Your task to perform on an android device: add a contact in the contacts app Image 0: 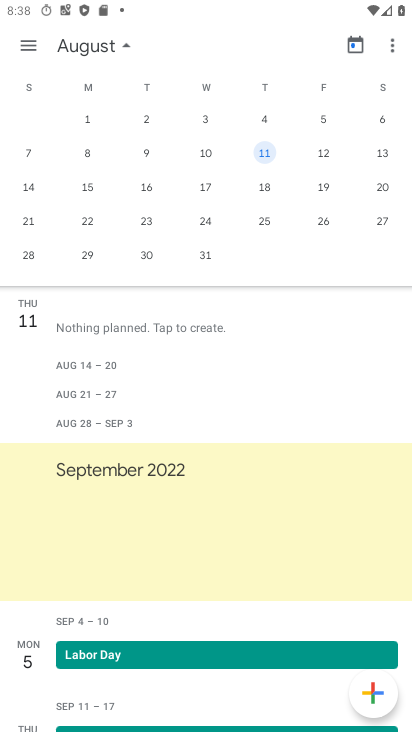
Step 0: click (296, 307)
Your task to perform on an android device: add a contact in the contacts app Image 1: 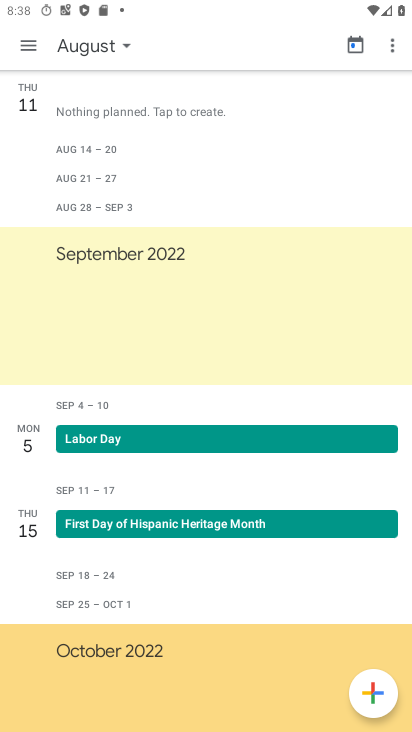
Step 1: press home button
Your task to perform on an android device: add a contact in the contacts app Image 2: 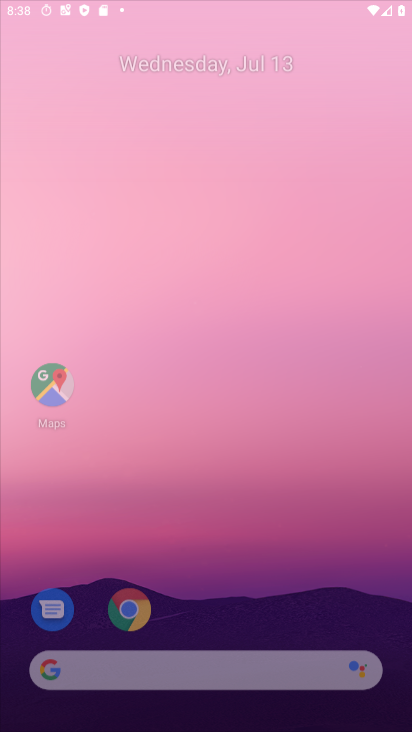
Step 2: press home button
Your task to perform on an android device: add a contact in the contacts app Image 3: 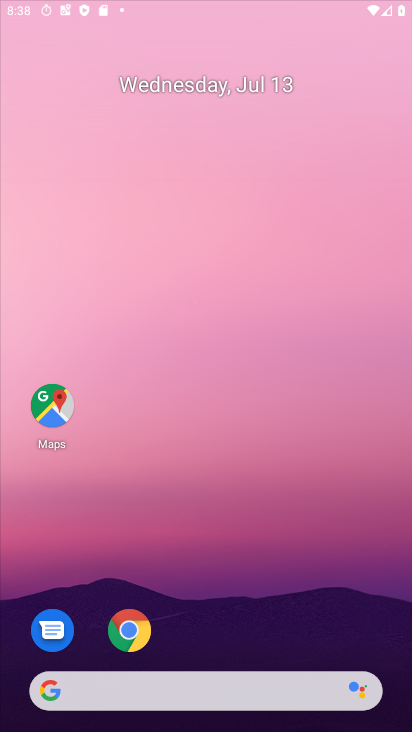
Step 3: drag from (349, 452) to (387, 123)
Your task to perform on an android device: add a contact in the contacts app Image 4: 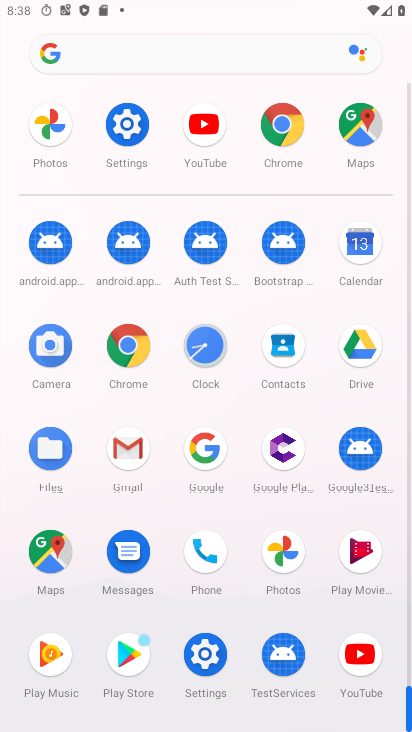
Step 4: click (279, 335)
Your task to perform on an android device: add a contact in the contacts app Image 5: 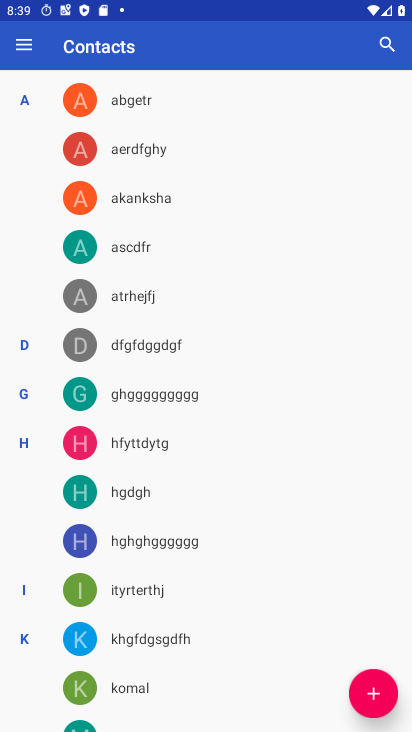
Step 5: click (378, 699)
Your task to perform on an android device: add a contact in the contacts app Image 6: 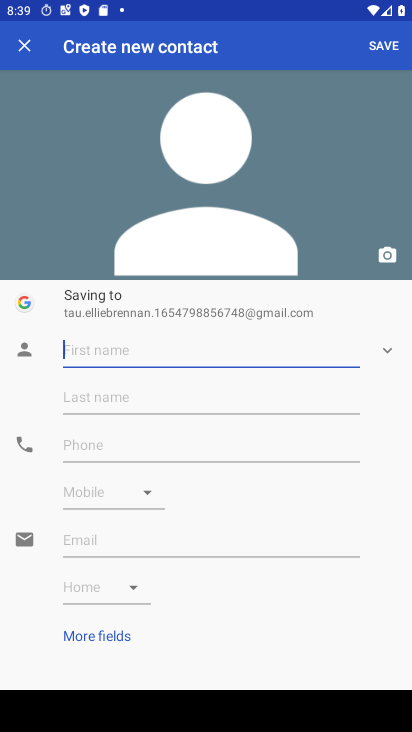
Step 6: click (87, 352)
Your task to perform on an android device: add a contact in the contacts app Image 7: 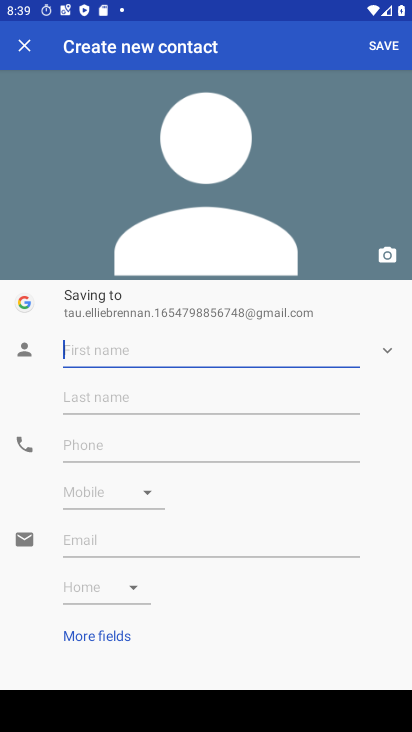
Step 7: type ""
Your task to perform on an android device: add a contact in the contacts app Image 8: 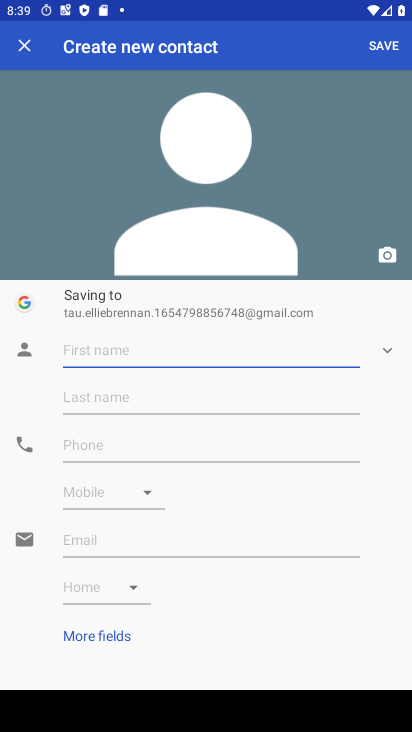
Step 8: type "addd"
Your task to perform on an android device: add a contact in the contacts app Image 9: 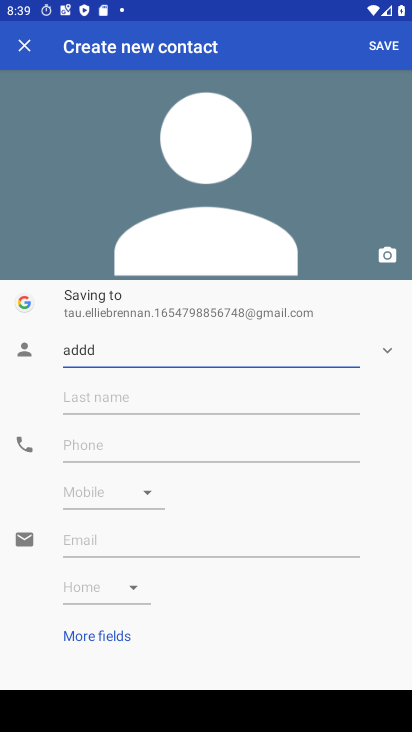
Step 9: click (377, 42)
Your task to perform on an android device: add a contact in the contacts app Image 10: 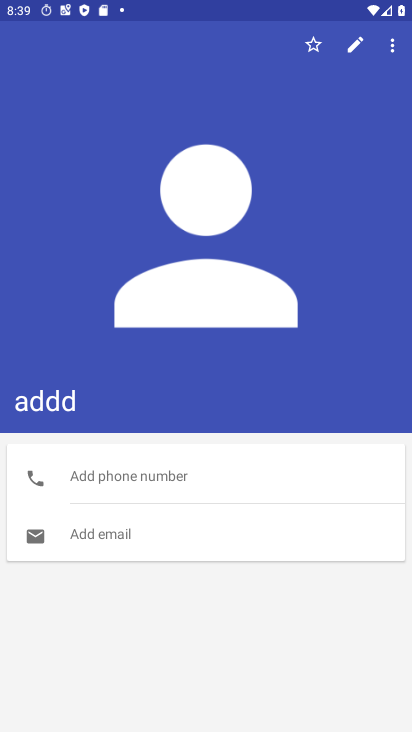
Step 10: task complete